Your task to perform on an android device: Open Google Image 0: 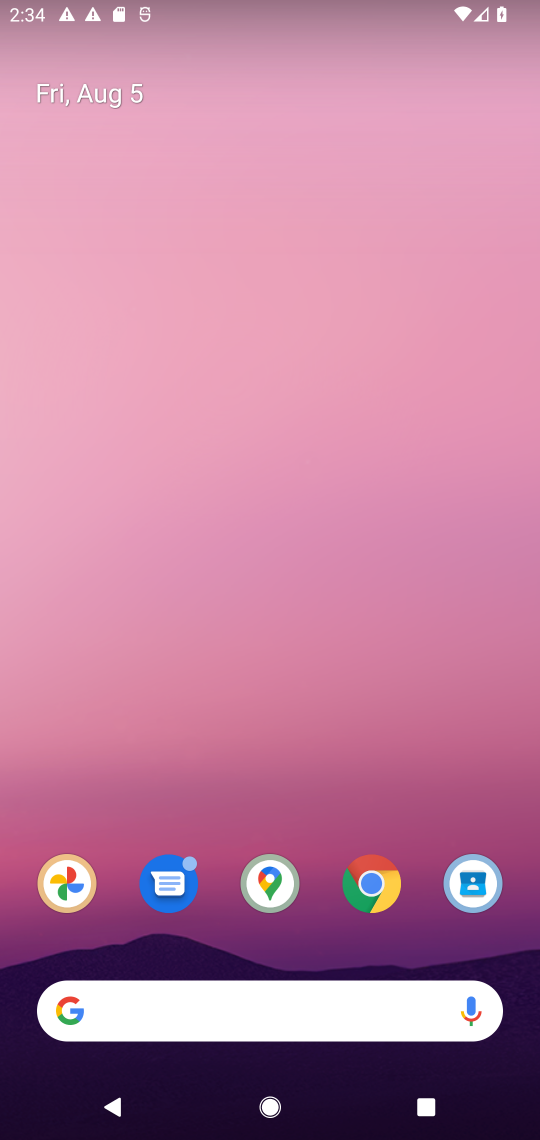
Step 0: press home button
Your task to perform on an android device: Open Google Image 1: 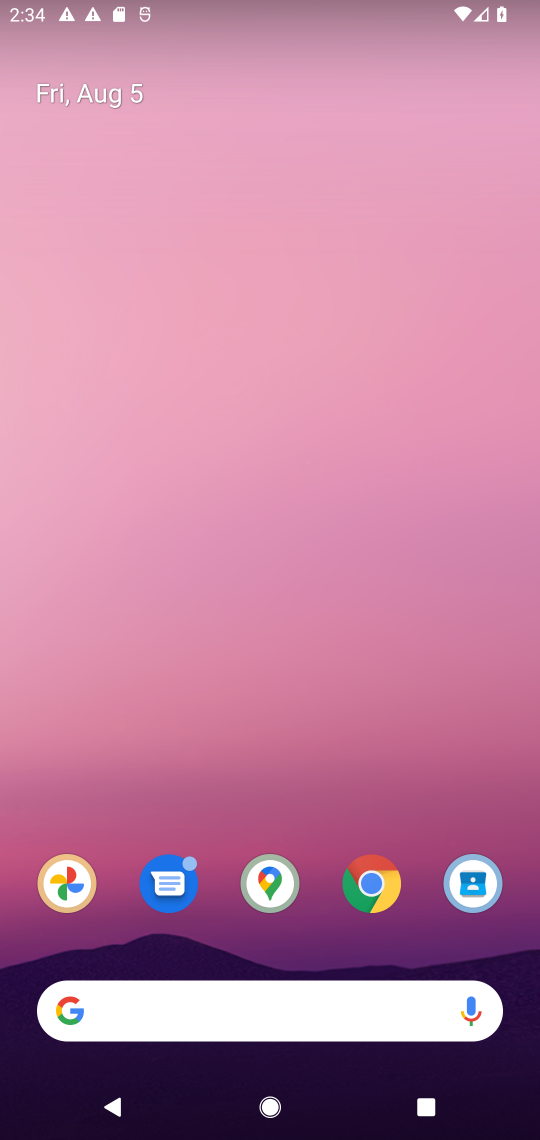
Step 1: drag from (311, 825) to (338, 16)
Your task to perform on an android device: Open Google Image 2: 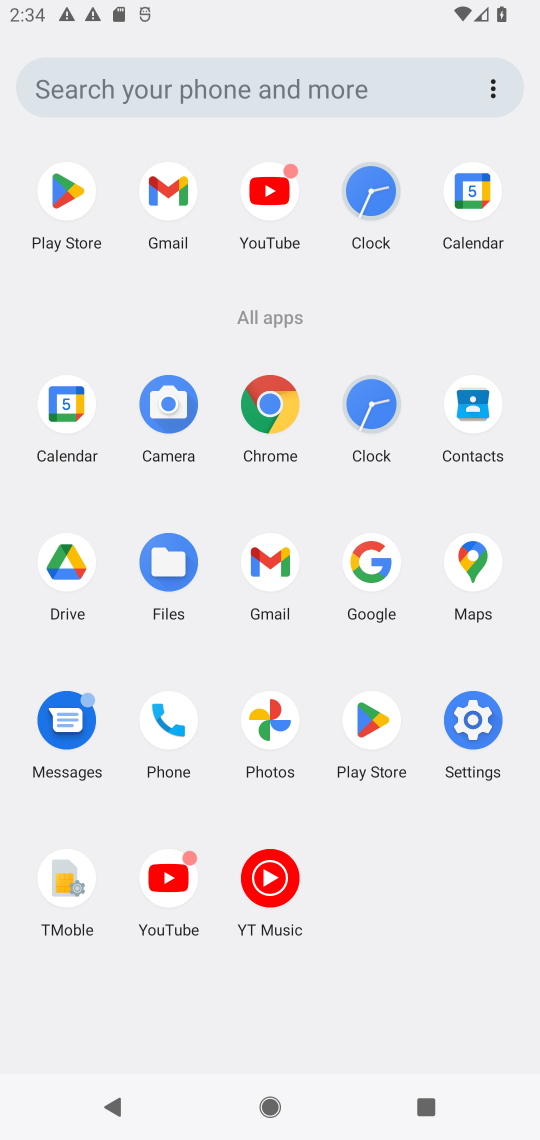
Step 2: click (367, 555)
Your task to perform on an android device: Open Google Image 3: 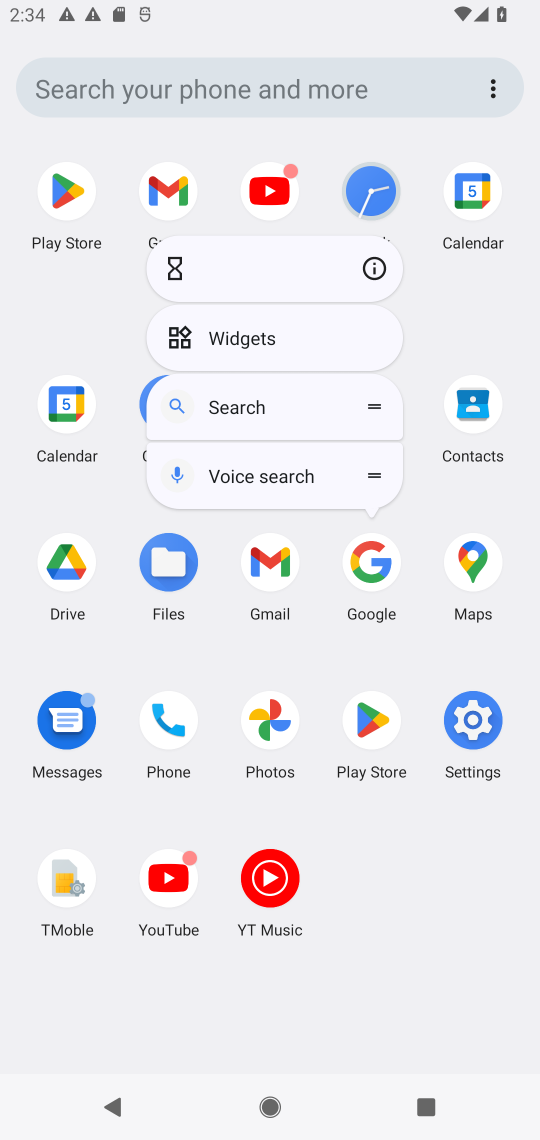
Step 3: click (369, 558)
Your task to perform on an android device: Open Google Image 4: 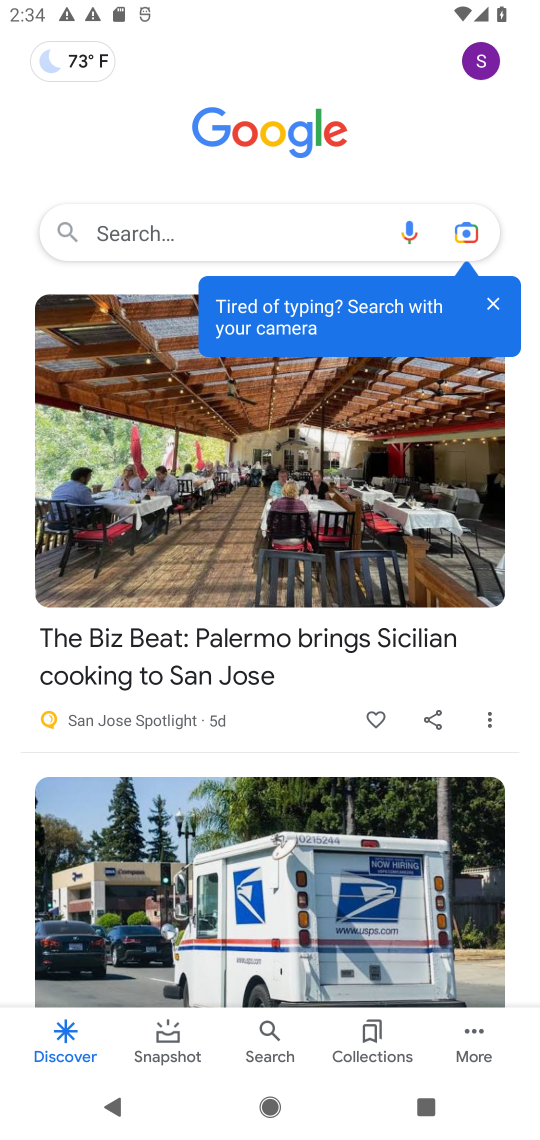
Step 4: click (453, 57)
Your task to perform on an android device: Open Google Image 5: 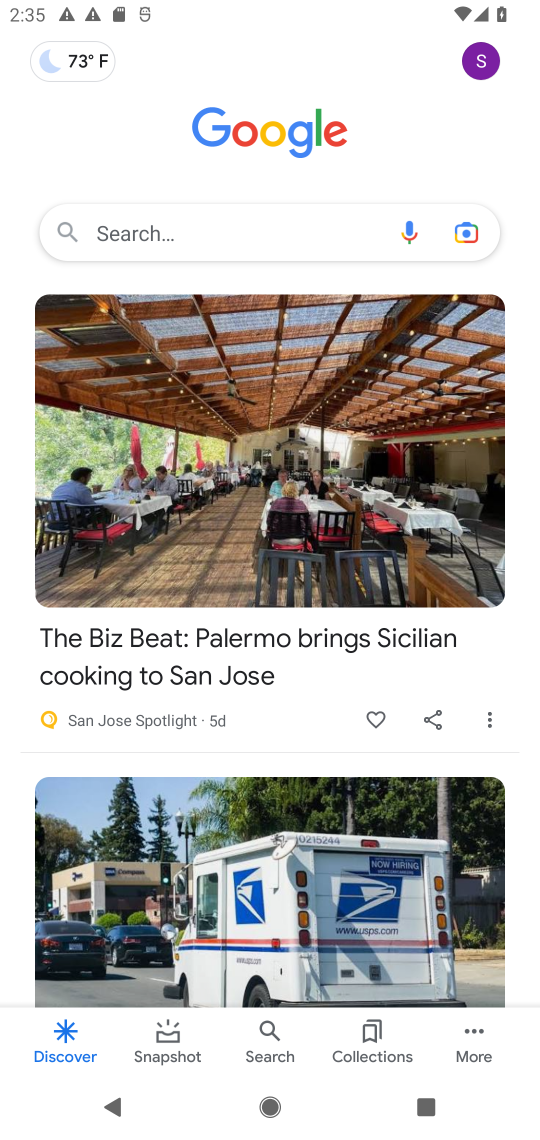
Step 5: click (150, 1031)
Your task to perform on an android device: Open Google Image 6: 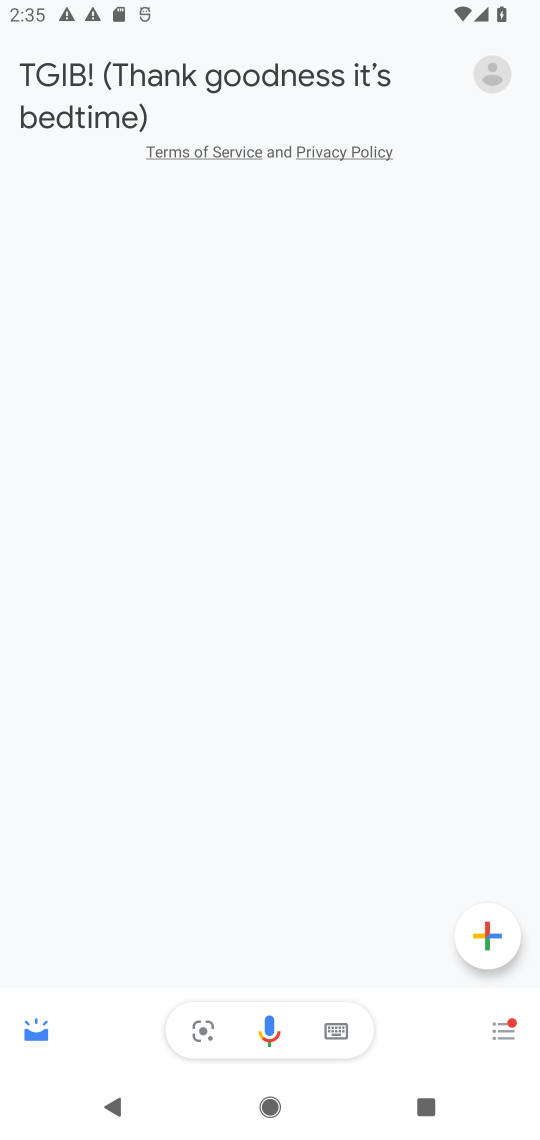
Step 6: click (480, 925)
Your task to perform on an android device: Open Google Image 7: 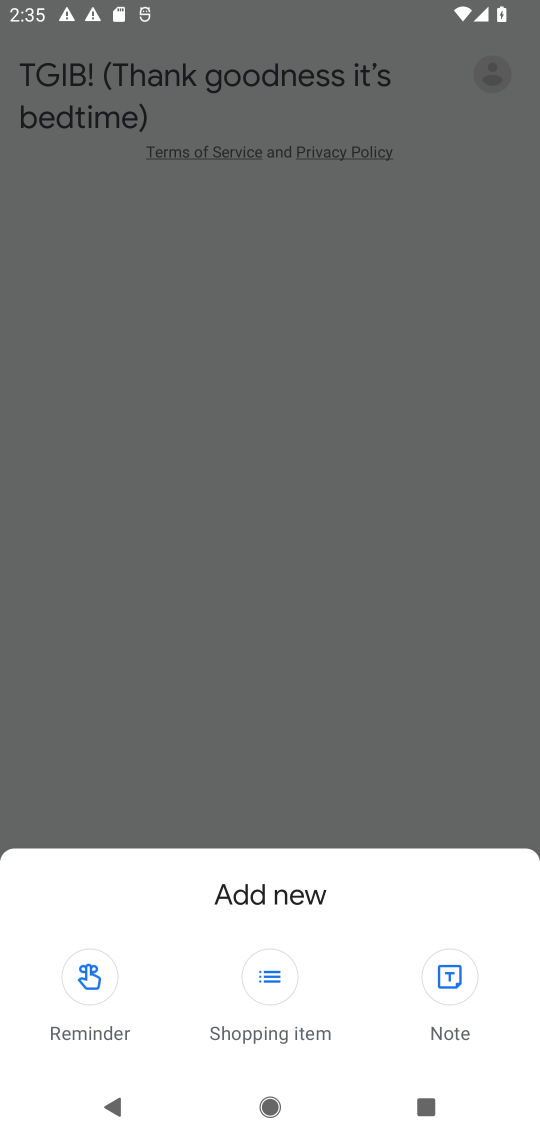
Step 7: click (379, 656)
Your task to perform on an android device: Open Google Image 8: 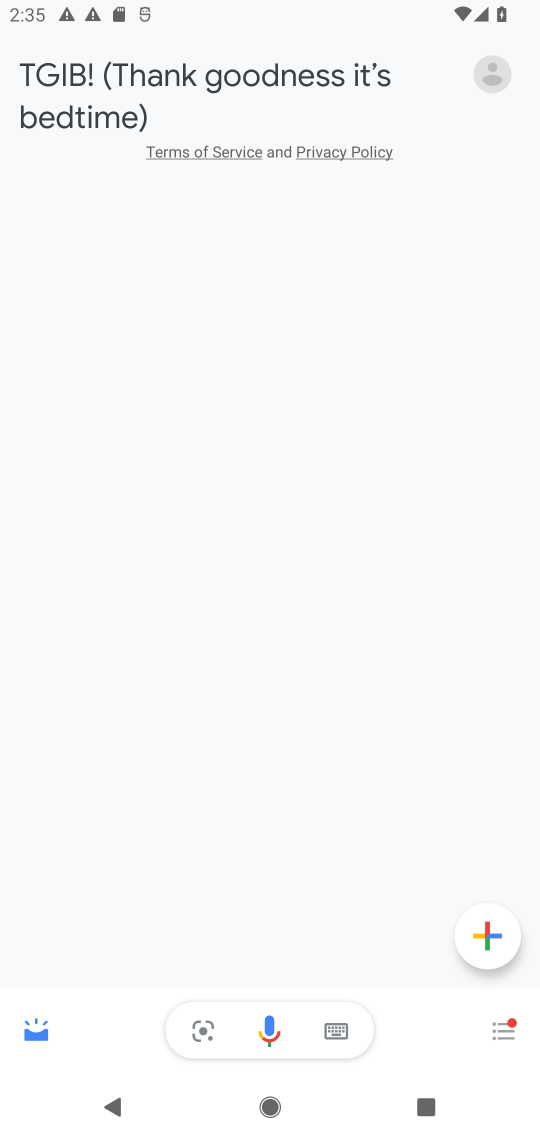
Step 8: press back button
Your task to perform on an android device: Open Google Image 9: 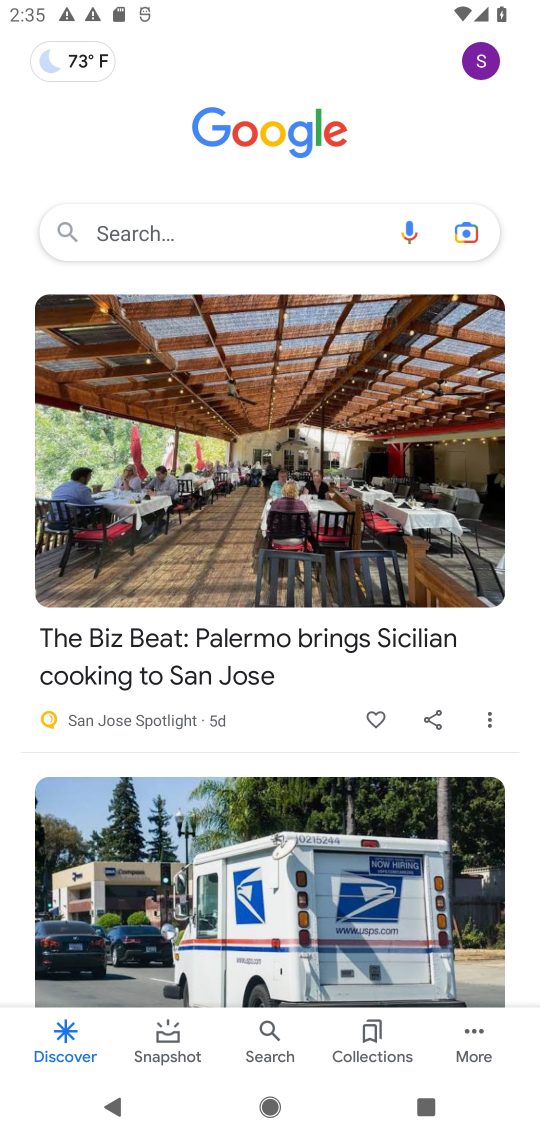
Step 9: click (266, 1043)
Your task to perform on an android device: Open Google Image 10: 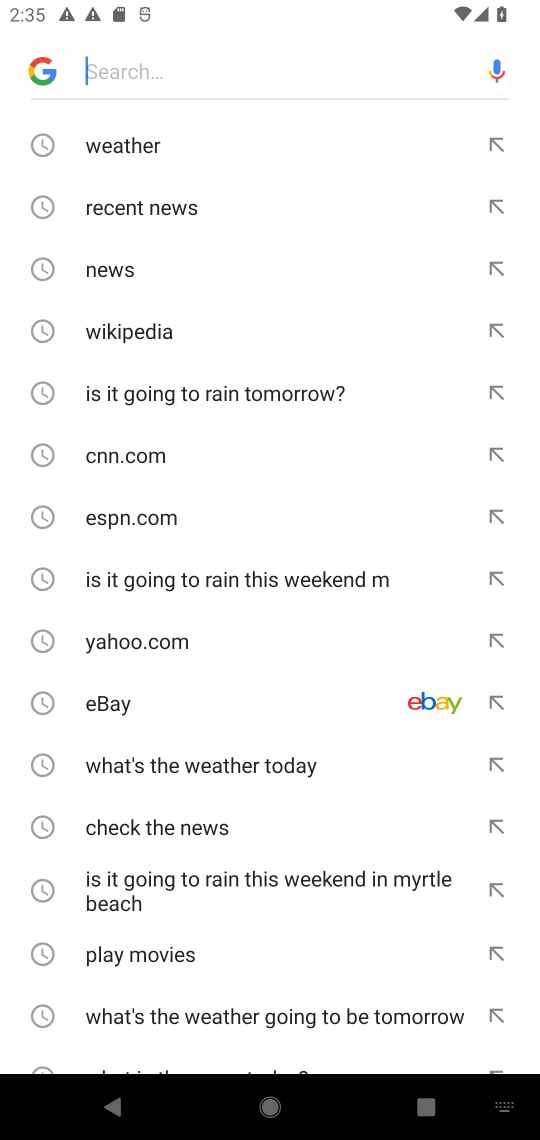
Step 10: press back button
Your task to perform on an android device: Open Google Image 11: 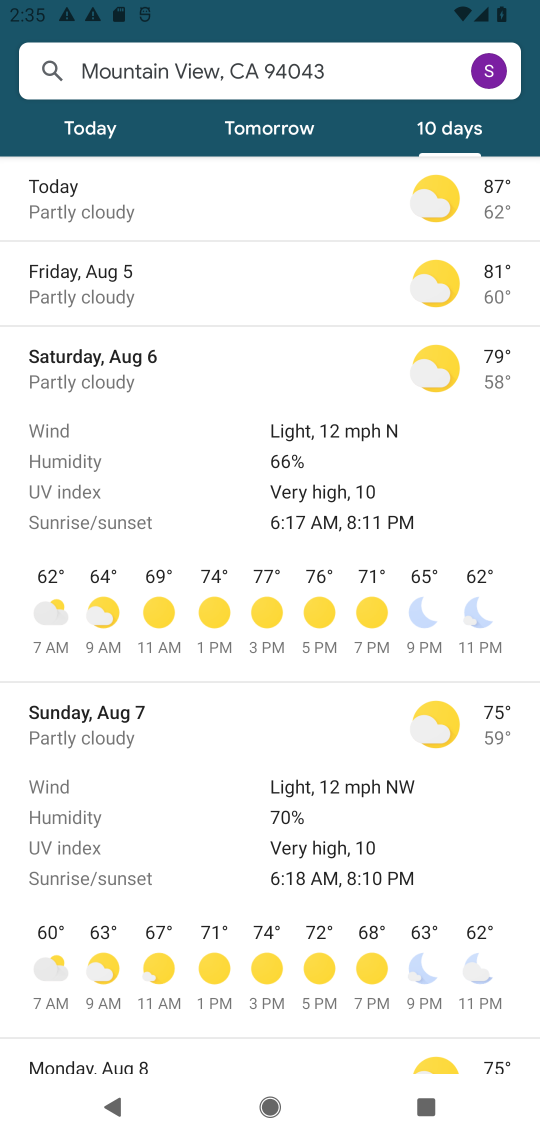
Step 11: press back button
Your task to perform on an android device: Open Google Image 12: 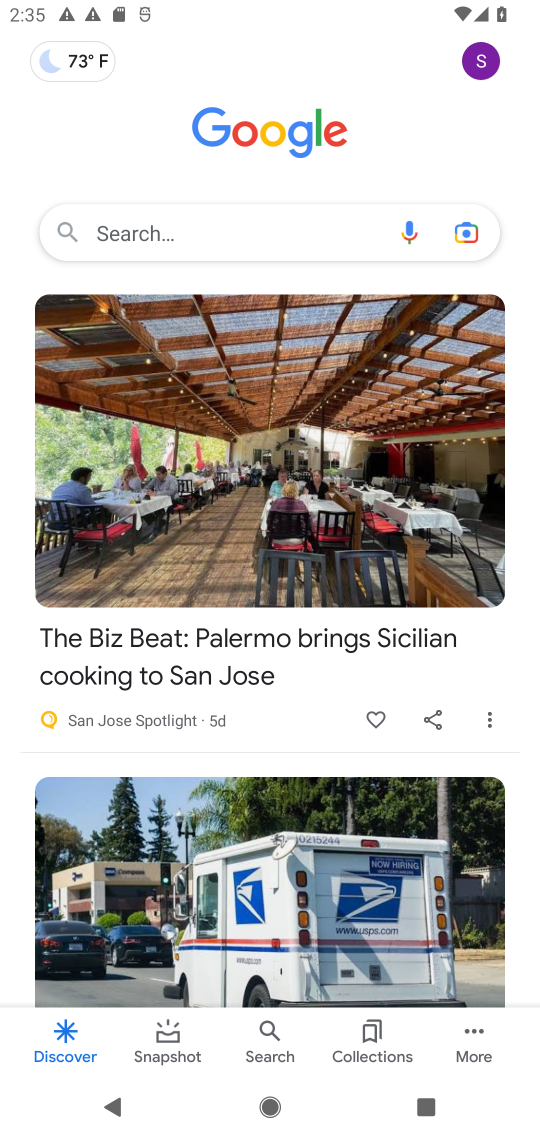
Step 12: click (373, 1038)
Your task to perform on an android device: Open Google Image 13: 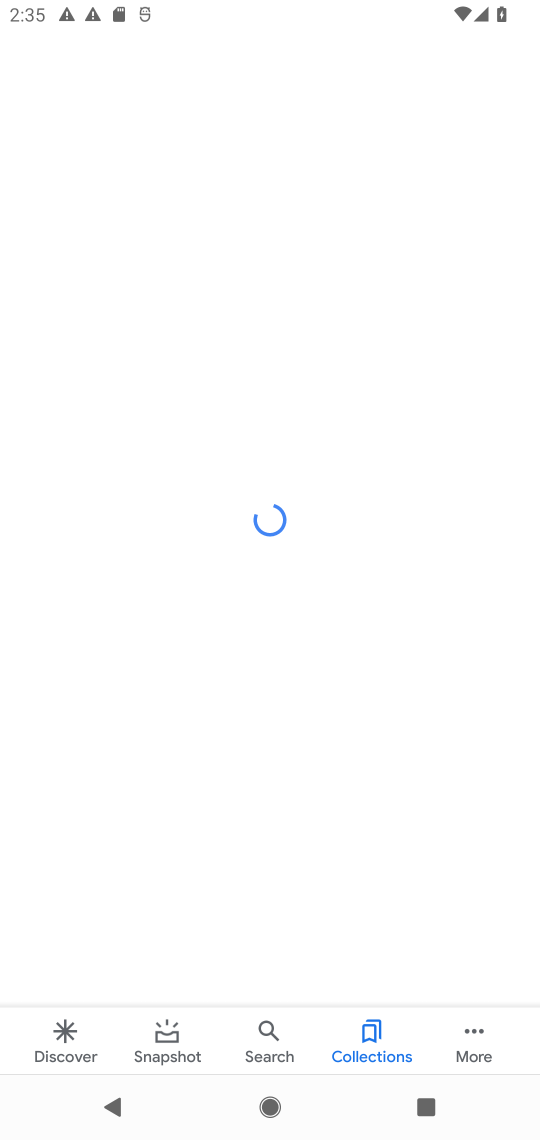
Step 13: task complete